Your task to perform on an android device: Check the weather Image 0: 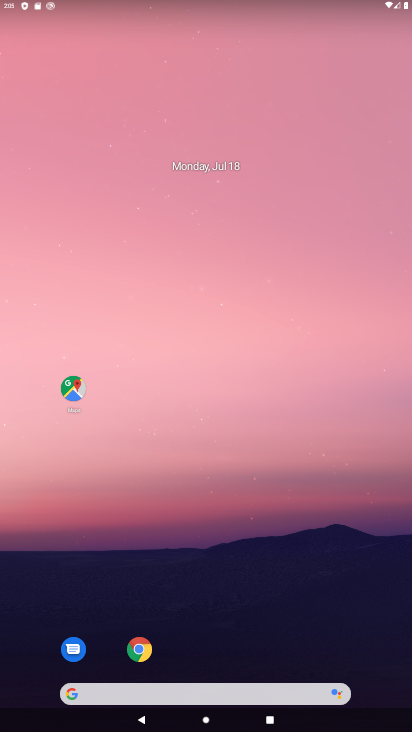
Step 0: click (202, 693)
Your task to perform on an android device: Check the weather Image 1: 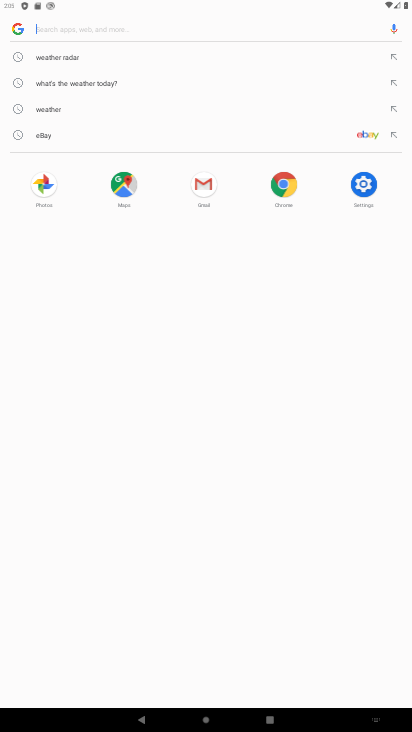
Step 1: click (56, 113)
Your task to perform on an android device: Check the weather Image 2: 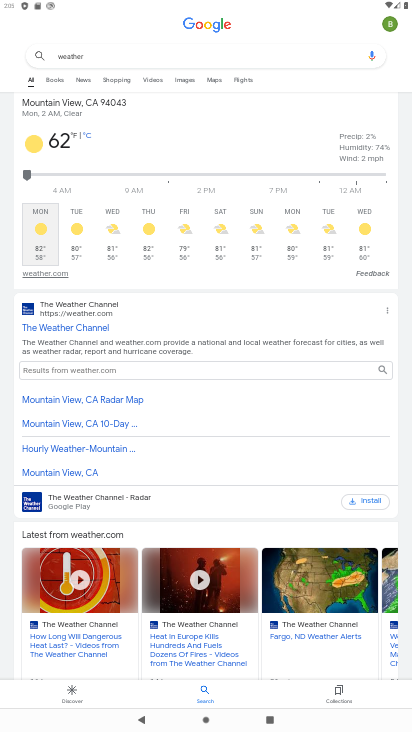
Step 2: task complete